Your task to perform on an android device: toggle pop-ups in chrome Image 0: 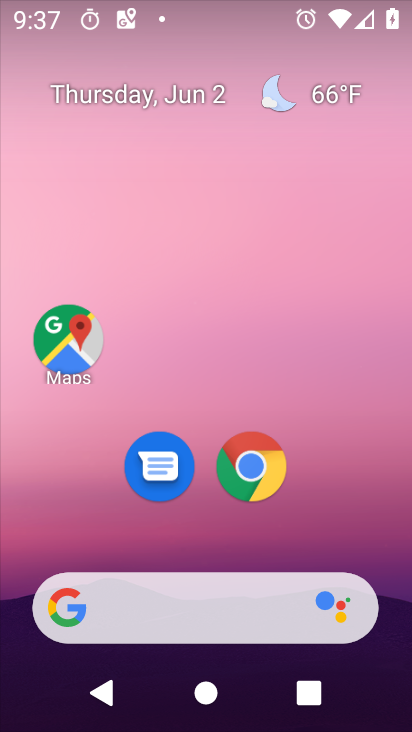
Step 0: click (243, 460)
Your task to perform on an android device: toggle pop-ups in chrome Image 1: 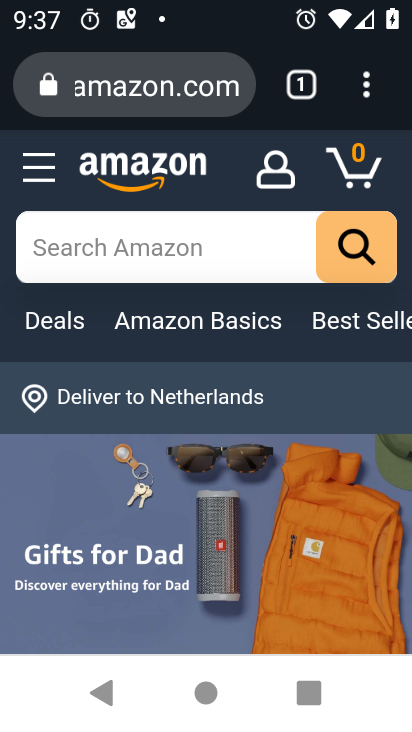
Step 1: click (366, 82)
Your task to perform on an android device: toggle pop-ups in chrome Image 2: 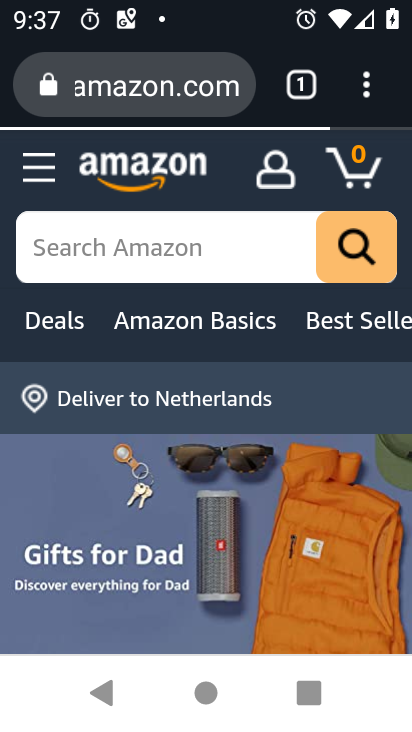
Step 2: click (381, 82)
Your task to perform on an android device: toggle pop-ups in chrome Image 3: 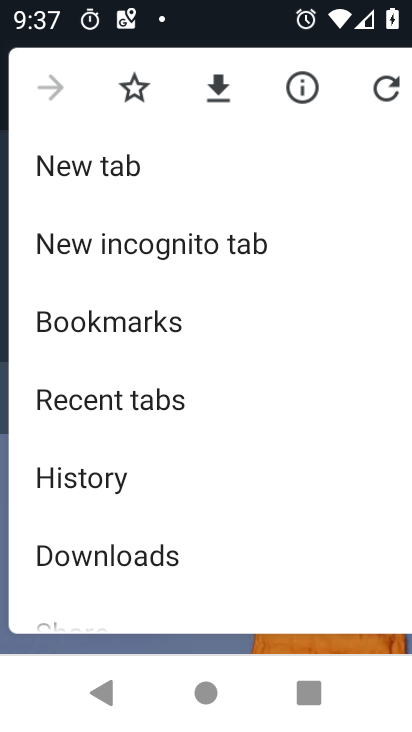
Step 3: drag from (103, 598) to (276, 107)
Your task to perform on an android device: toggle pop-ups in chrome Image 4: 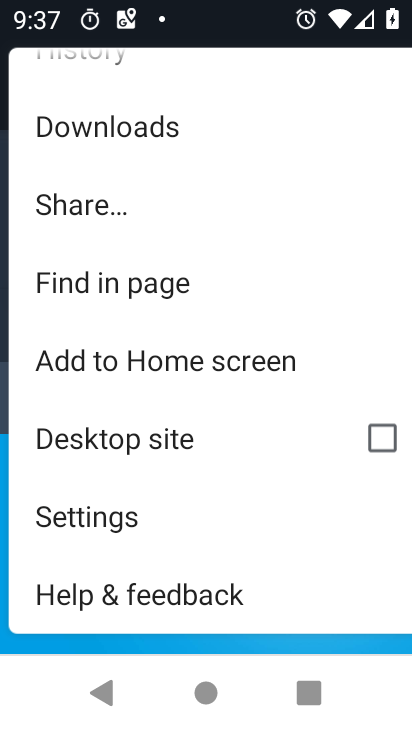
Step 4: click (116, 516)
Your task to perform on an android device: toggle pop-ups in chrome Image 5: 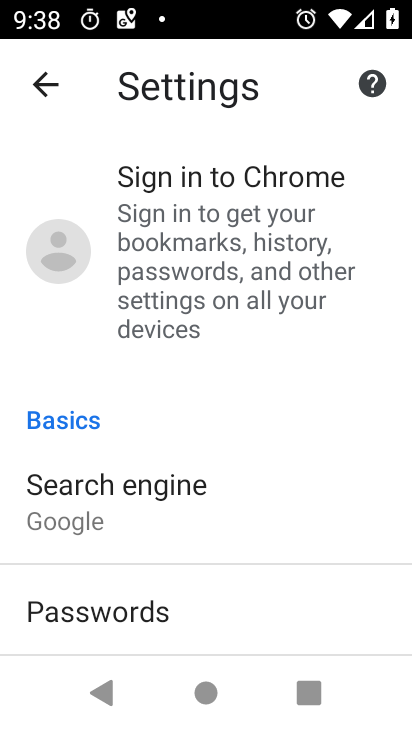
Step 5: drag from (44, 597) to (265, 166)
Your task to perform on an android device: toggle pop-ups in chrome Image 6: 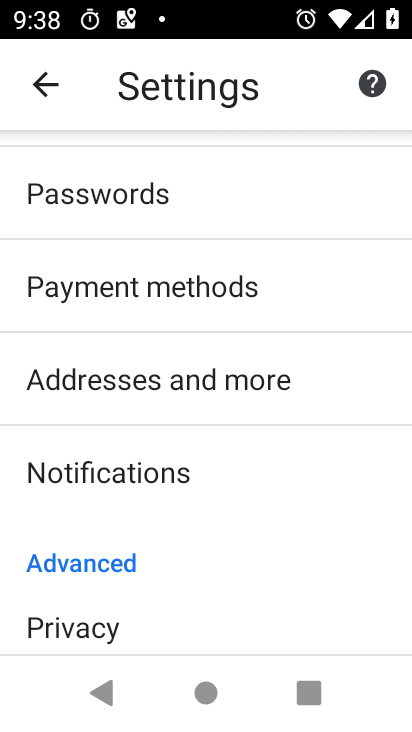
Step 6: drag from (32, 563) to (284, 160)
Your task to perform on an android device: toggle pop-ups in chrome Image 7: 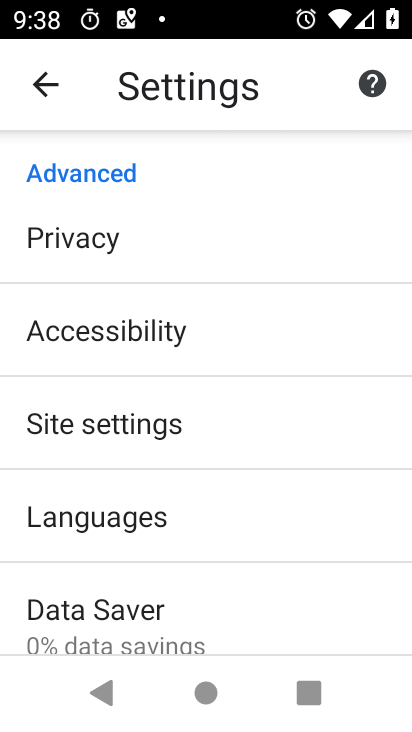
Step 7: click (146, 420)
Your task to perform on an android device: toggle pop-ups in chrome Image 8: 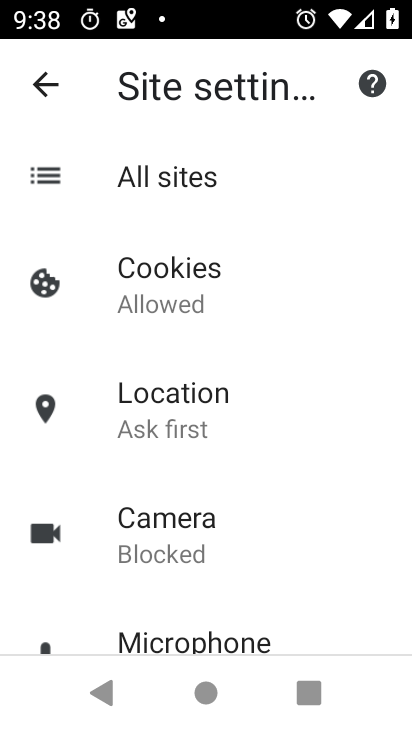
Step 8: drag from (5, 431) to (147, 196)
Your task to perform on an android device: toggle pop-ups in chrome Image 9: 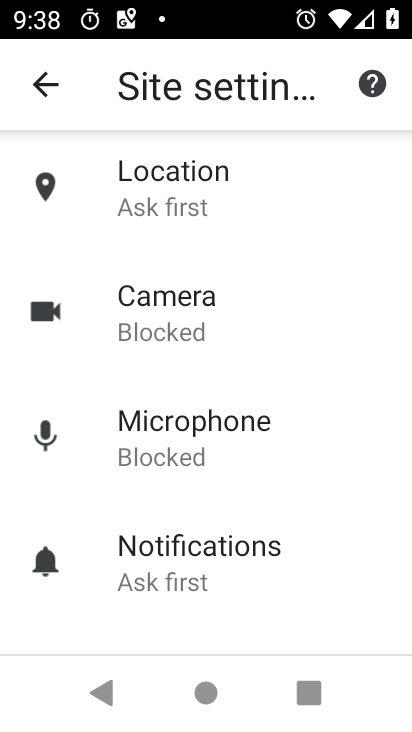
Step 9: drag from (0, 523) to (167, 247)
Your task to perform on an android device: toggle pop-ups in chrome Image 10: 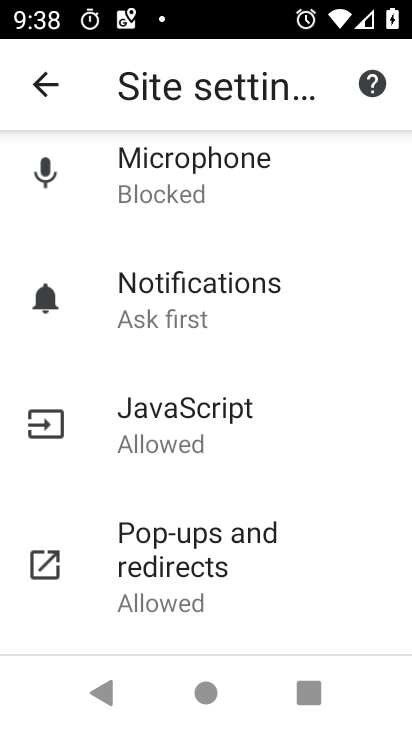
Step 10: click (119, 557)
Your task to perform on an android device: toggle pop-ups in chrome Image 11: 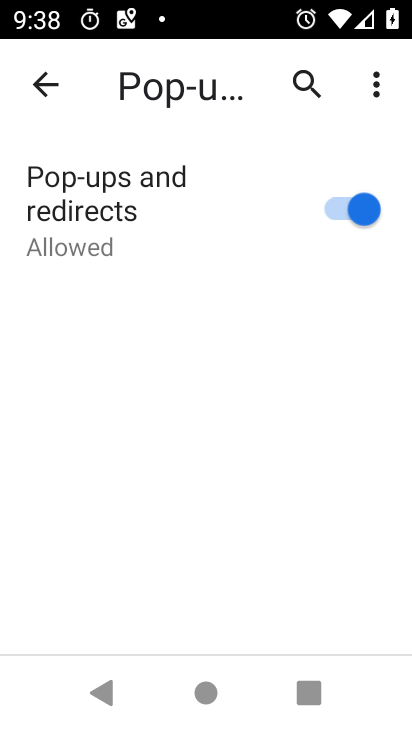
Step 11: click (367, 218)
Your task to perform on an android device: toggle pop-ups in chrome Image 12: 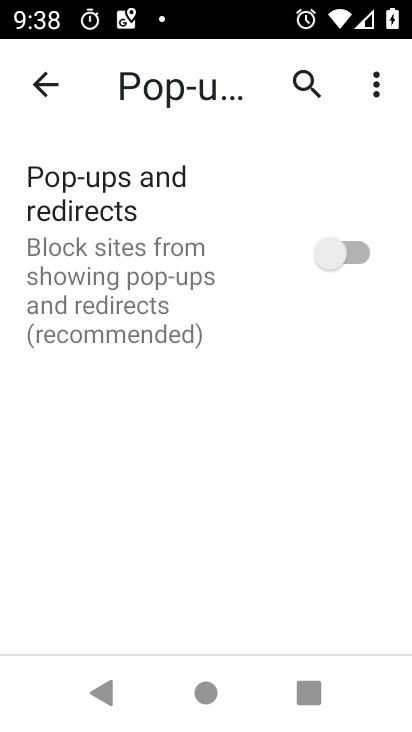
Step 12: task complete